Your task to perform on an android device: see tabs open on other devices in the chrome app Image 0: 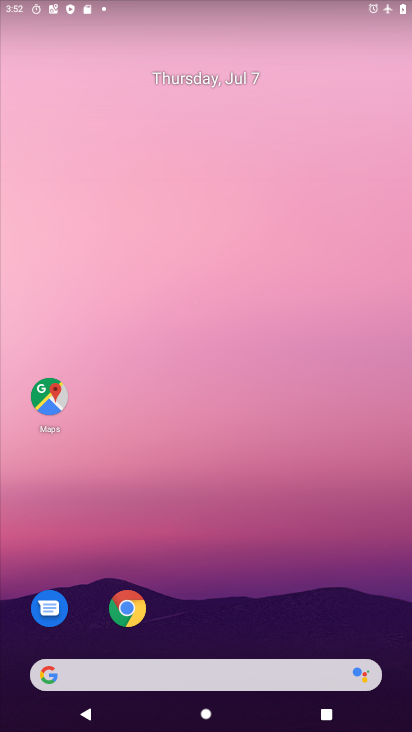
Step 0: click (124, 610)
Your task to perform on an android device: see tabs open on other devices in the chrome app Image 1: 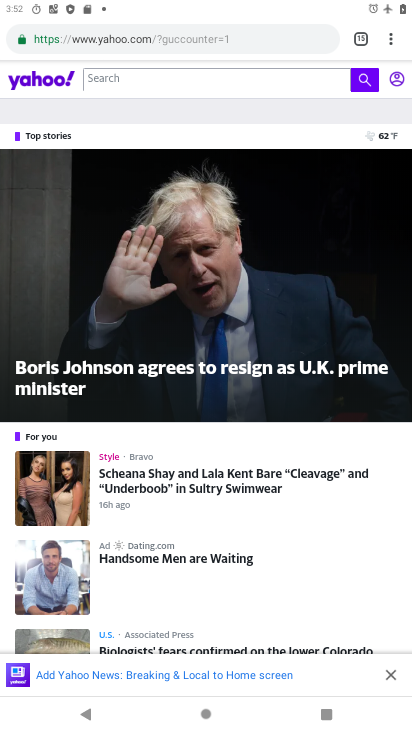
Step 1: click (388, 42)
Your task to perform on an android device: see tabs open on other devices in the chrome app Image 2: 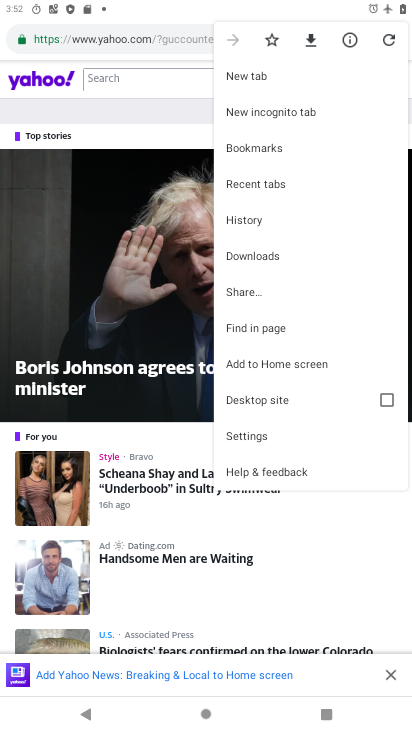
Step 2: click (257, 185)
Your task to perform on an android device: see tabs open on other devices in the chrome app Image 3: 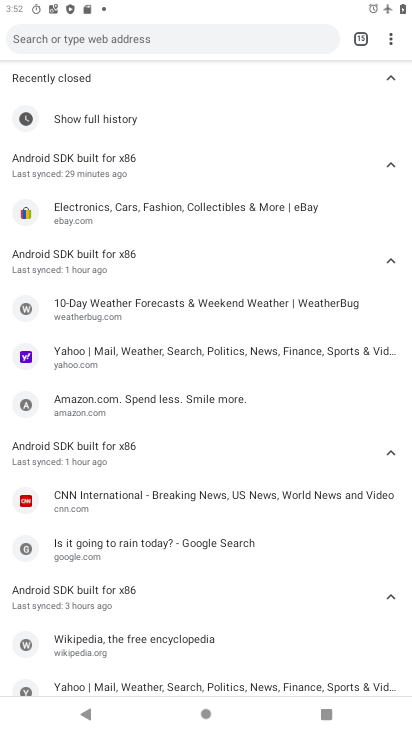
Step 3: task complete